Your task to perform on an android device: Open a new Chrome private window Image 0: 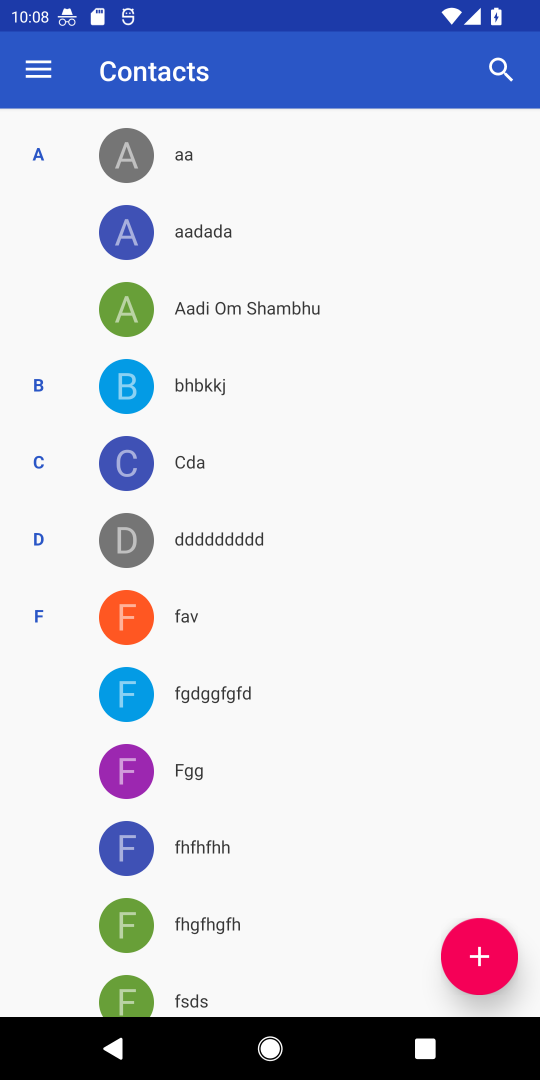
Step 0: press home button
Your task to perform on an android device: Open a new Chrome private window Image 1: 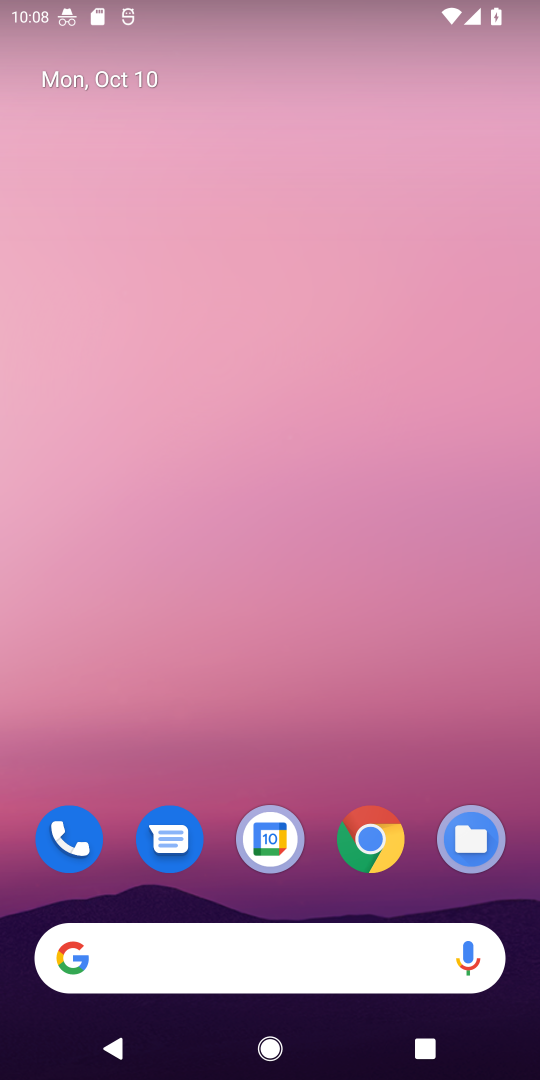
Step 1: drag from (327, 676) to (284, 86)
Your task to perform on an android device: Open a new Chrome private window Image 2: 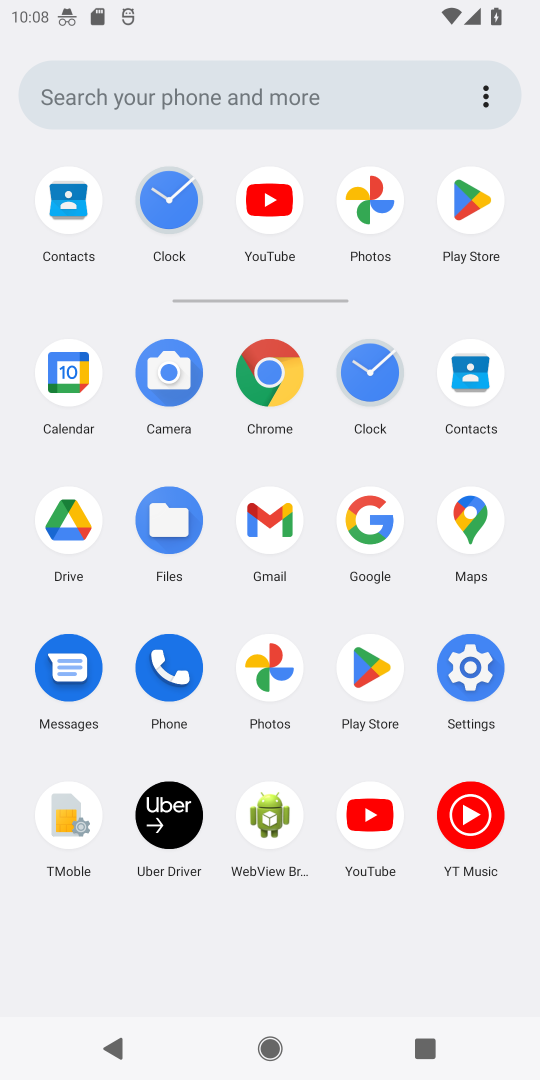
Step 2: click (270, 361)
Your task to perform on an android device: Open a new Chrome private window Image 3: 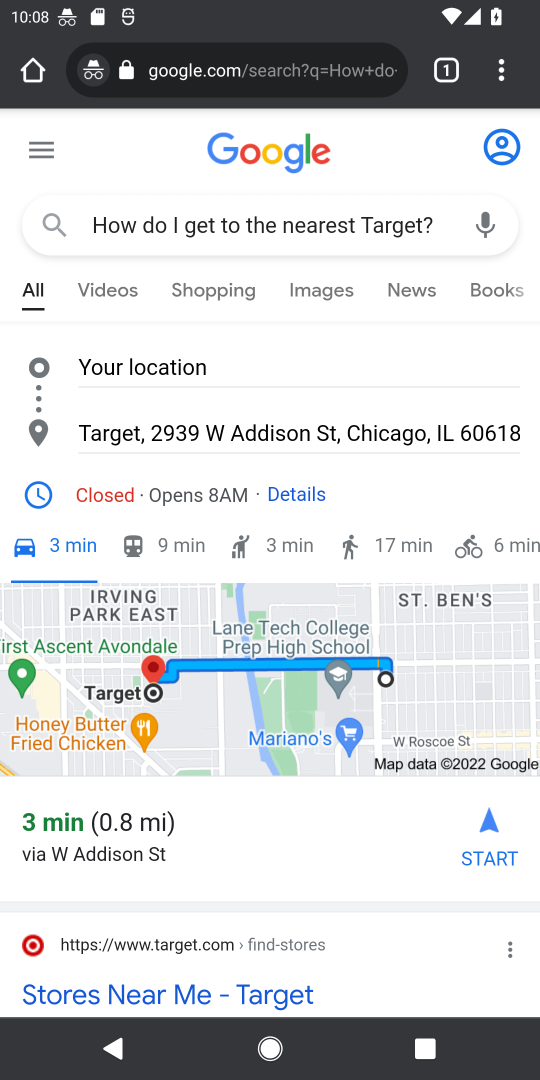
Step 3: task complete